Your task to perform on an android device: Go to ESPN.com Image 0: 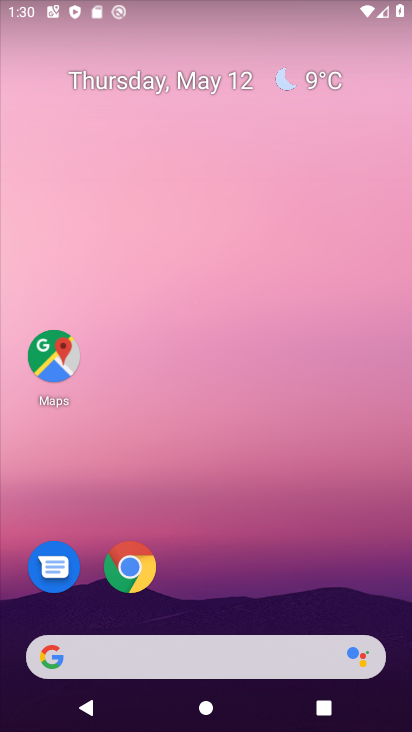
Step 0: drag from (250, 593) to (238, 194)
Your task to perform on an android device: Go to ESPN.com Image 1: 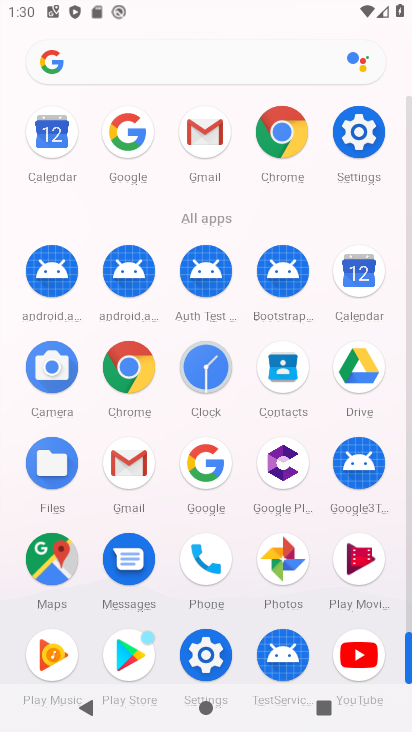
Step 1: click (279, 178)
Your task to perform on an android device: Go to ESPN.com Image 2: 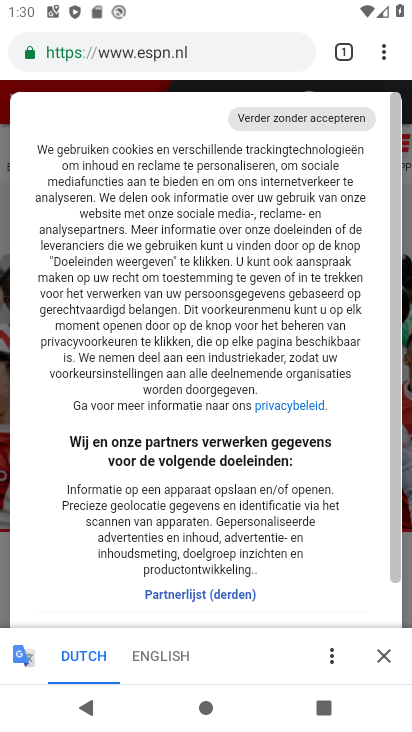
Step 2: click (212, 52)
Your task to perform on an android device: Go to ESPN.com Image 3: 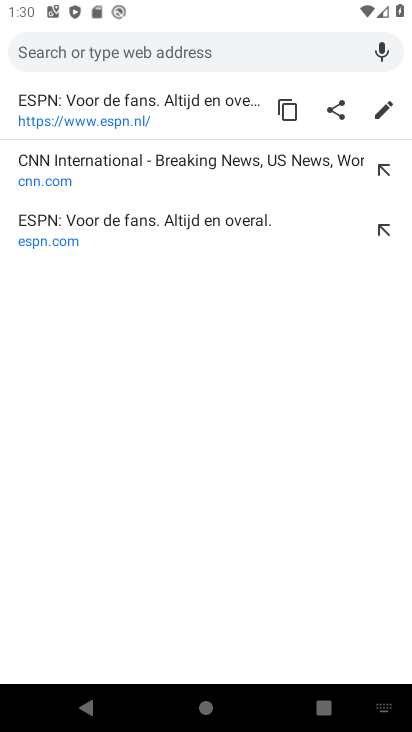
Step 3: click (148, 233)
Your task to perform on an android device: Go to ESPN.com Image 4: 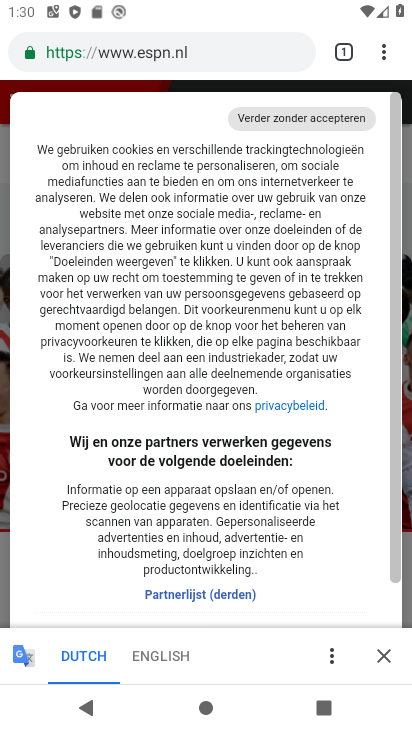
Step 4: task complete